Your task to perform on an android device: Show me the alarms in the clock app Image 0: 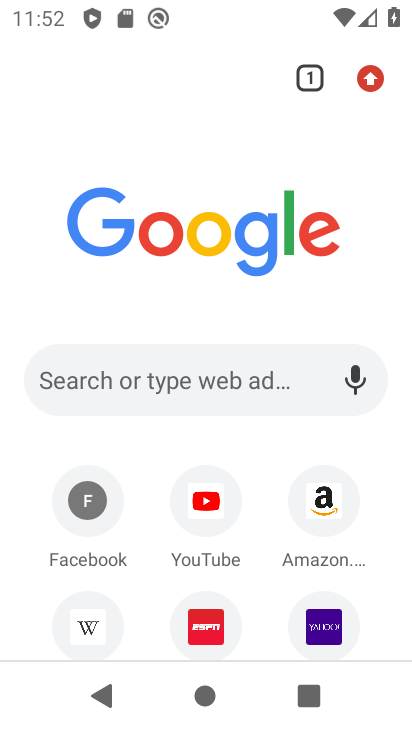
Step 0: press home button
Your task to perform on an android device: Show me the alarms in the clock app Image 1: 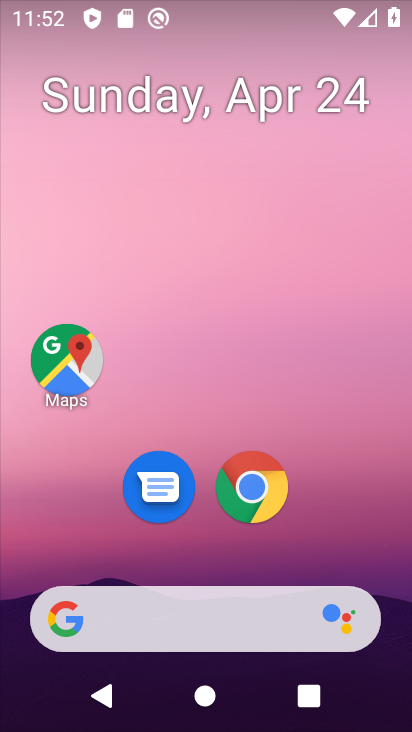
Step 1: drag from (397, 606) to (277, 52)
Your task to perform on an android device: Show me the alarms in the clock app Image 2: 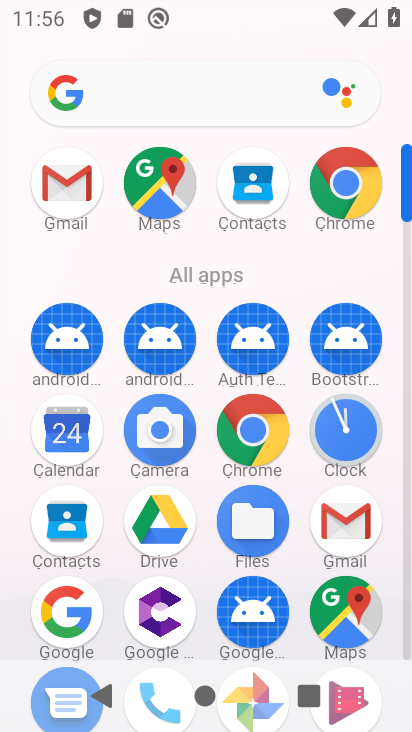
Step 2: click (340, 416)
Your task to perform on an android device: Show me the alarms in the clock app Image 3: 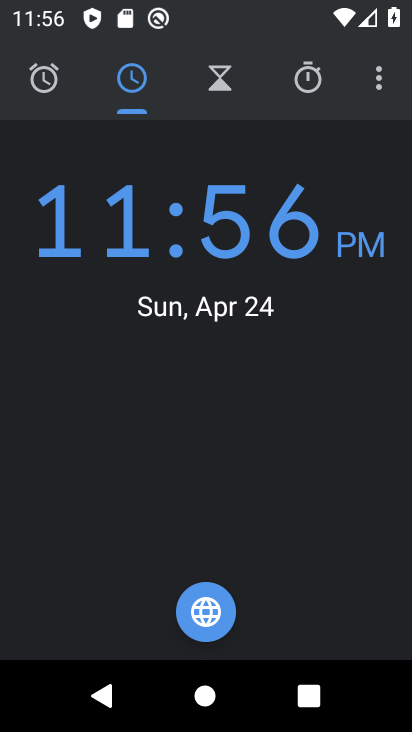
Step 3: click (47, 82)
Your task to perform on an android device: Show me the alarms in the clock app Image 4: 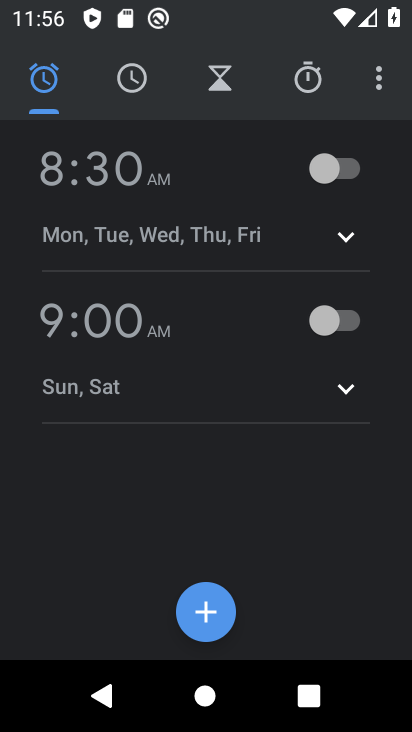
Step 4: task complete